Your task to perform on an android device: Open Wikipedia Image 0: 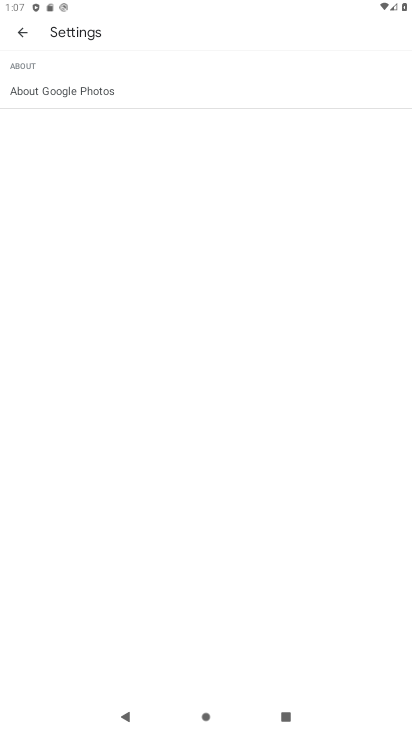
Step 0: press home button
Your task to perform on an android device: Open Wikipedia Image 1: 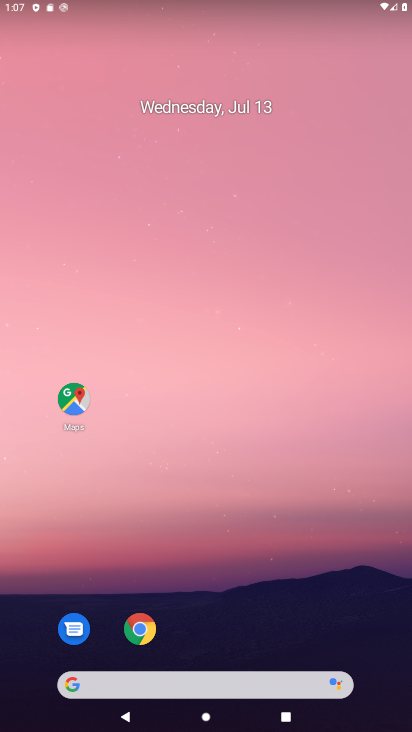
Step 1: click (198, 680)
Your task to perform on an android device: Open Wikipedia Image 2: 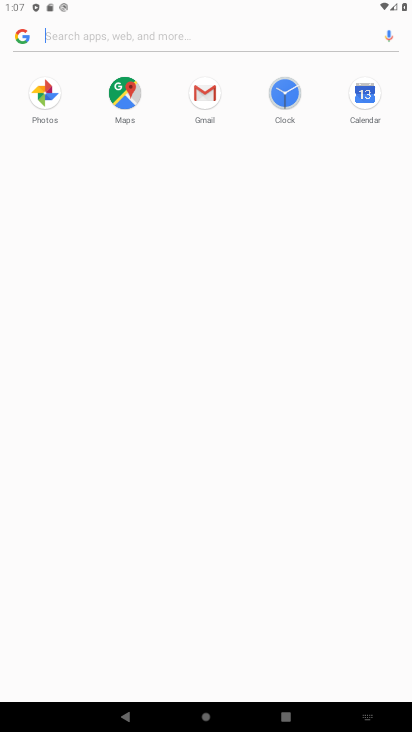
Step 2: type "wikipediw"
Your task to perform on an android device: Open Wikipedia Image 3: 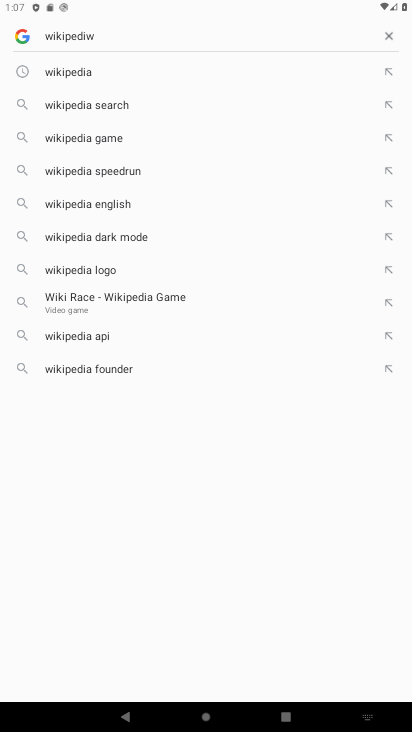
Step 3: click (147, 76)
Your task to perform on an android device: Open Wikipedia Image 4: 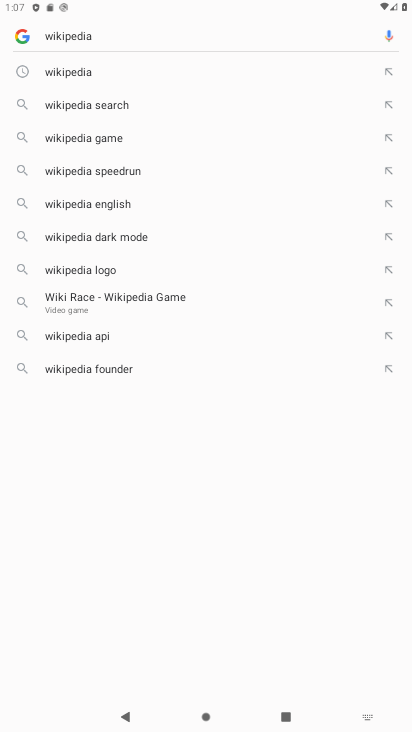
Step 4: task complete